Your task to perform on an android device: turn on the 12-hour format for clock Image 0: 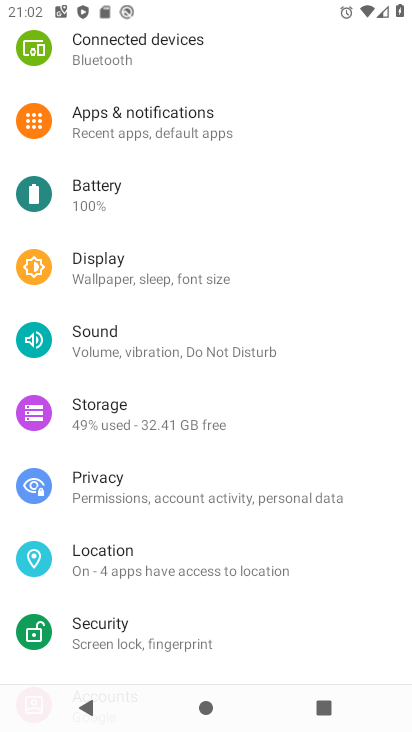
Step 0: drag from (135, 632) to (173, 309)
Your task to perform on an android device: turn on the 12-hour format for clock Image 1: 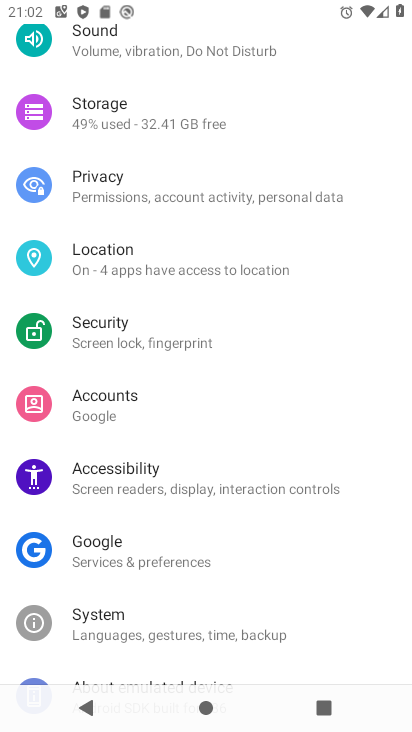
Step 1: click (117, 627)
Your task to perform on an android device: turn on the 12-hour format for clock Image 2: 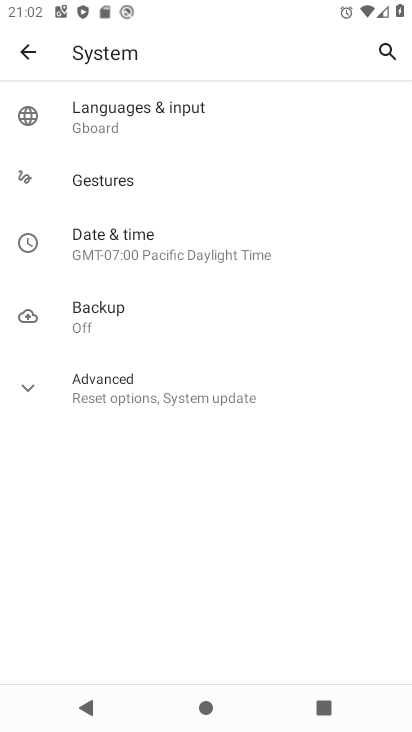
Step 2: click (203, 243)
Your task to perform on an android device: turn on the 12-hour format for clock Image 3: 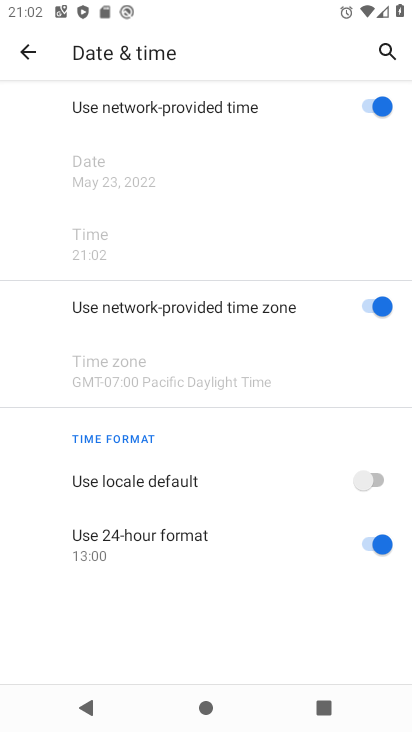
Step 3: click (386, 476)
Your task to perform on an android device: turn on the 12-hour format for clock Image 4: 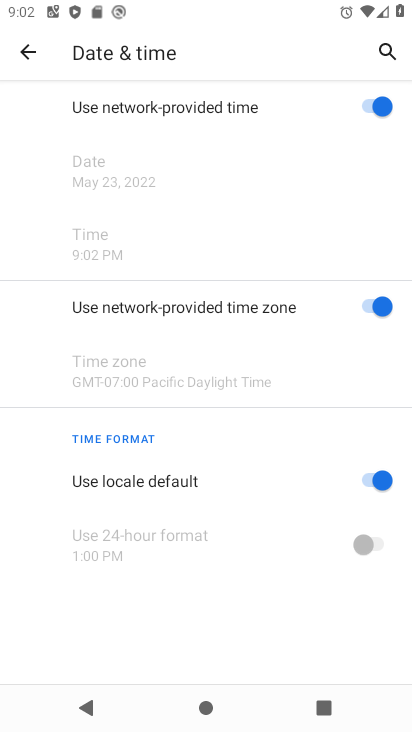
Step 4: task complete